Your task to perform on an android device: change alarm snooze length Image 0: 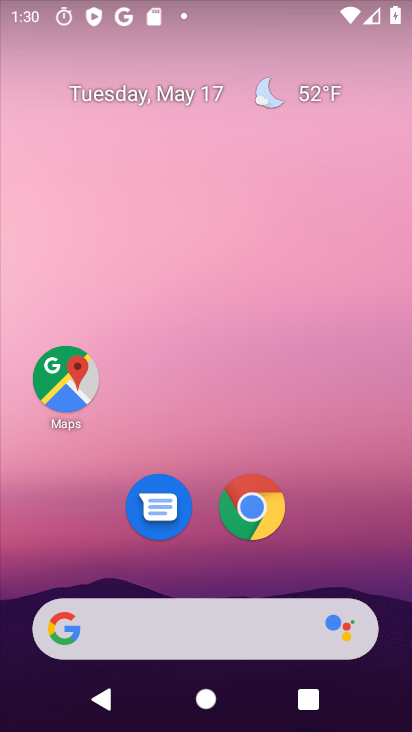
Step 0: drag from (209, 545) to (245, 146)
Your task to perform on an android device: change alarm snooze length Image 1: 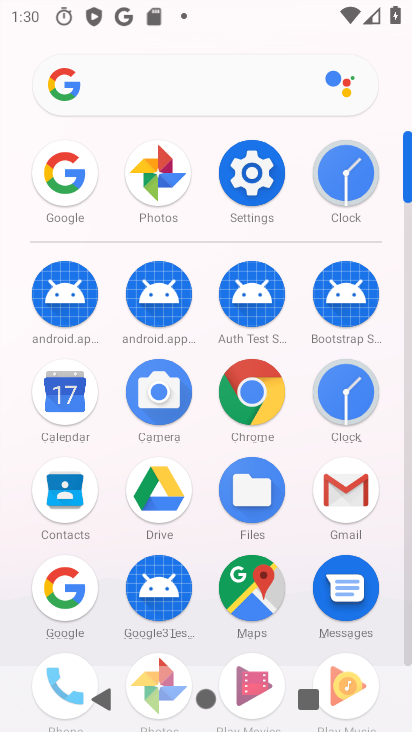
Step 1: click (341, 387)
Your task to perform on an android device: change alarm snooze length Image 2: 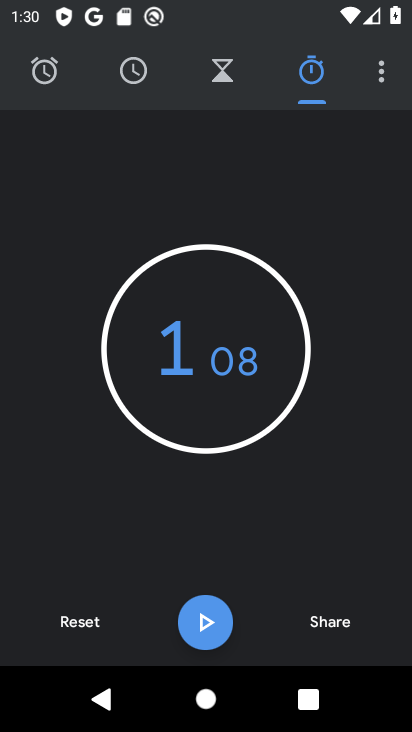
Step 2: click (369, 76)
Your task to perform on an android device: change alarm snooze length Image 3: 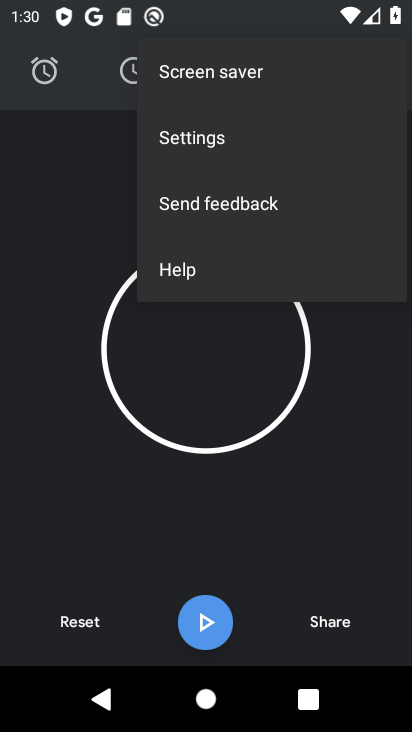
Step 3: click (225, 135)
Your task to perform on an android device: change alarm snooze length Image 4: 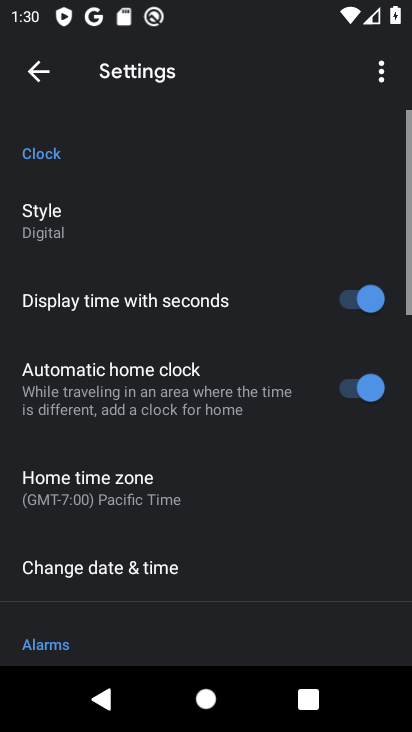
Step 4: drag from (190, 477) to (204, 100)
Your task to perform on an android device: change alarm snooze length Image 5: 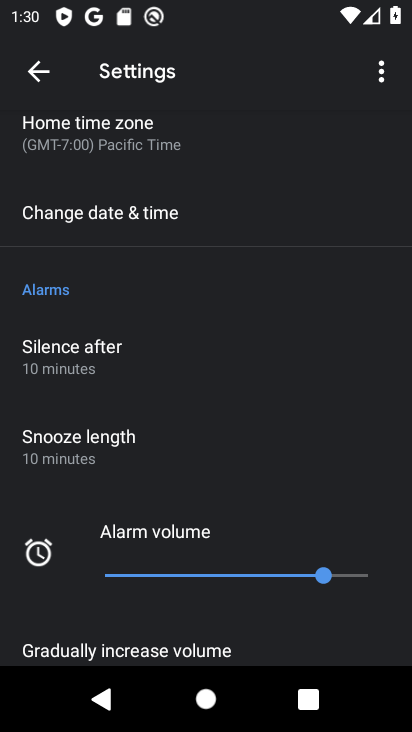
Step 5: click (50, 443)
Your task to perform on an android device: change alarm snooze length Image 6: 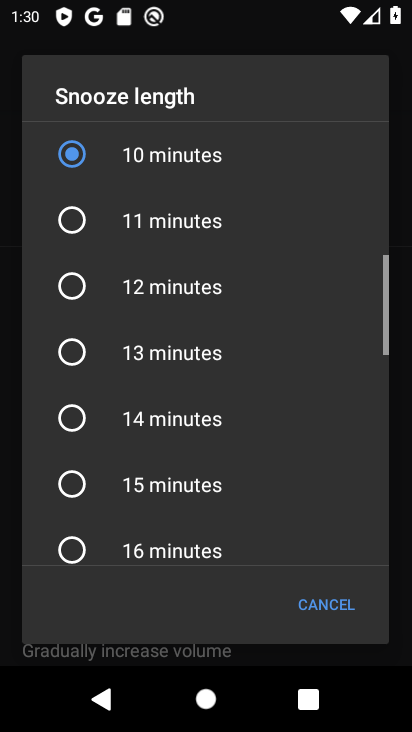
Step 6: click (74, 283)
Your task to perform on an android device: change alarm snooze length Image 7: 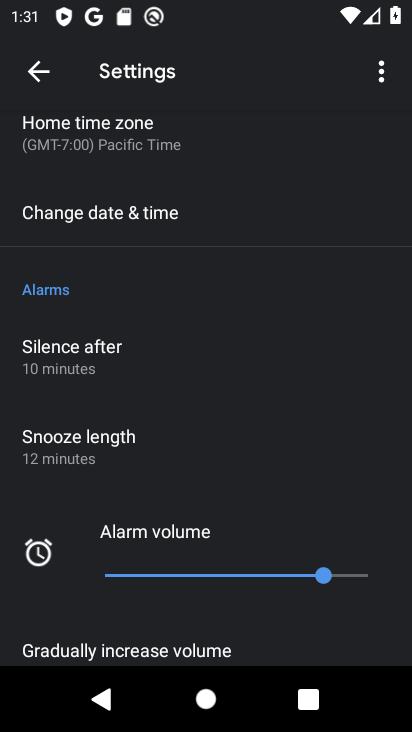
Step 7: task complete